Your task to perform on an android device: turn off smart reply in the gmail app Image 0: 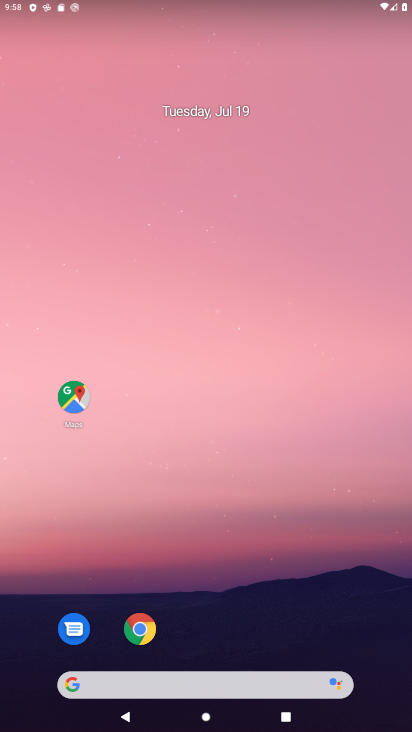
Step 0: press home button
Your task to perform on an android device: turn off smart reply in the gmail app Image 1: 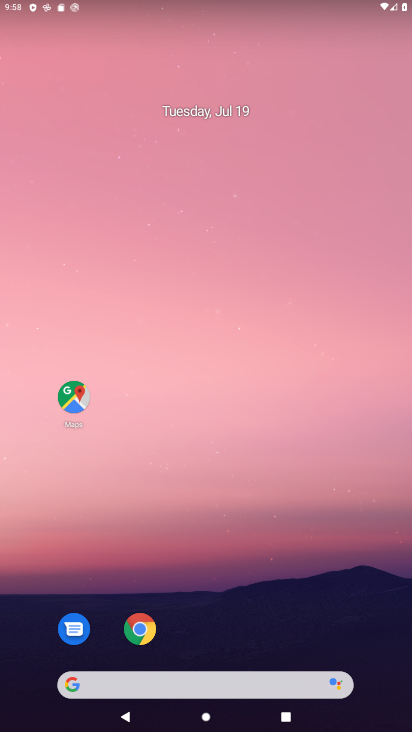
Step 1: drag from (246, 636) to (245, 90)
Your task to perform on an android device: turn off smart reply in the gmail app Image 2: 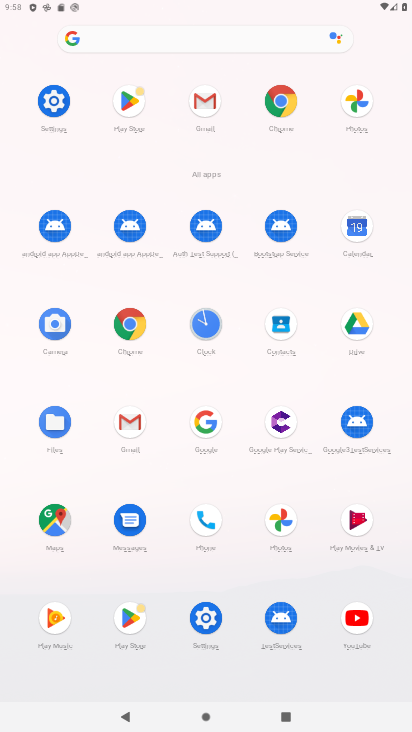
Step 2: click (210, 100)
Your task to perform on an android device: turn off smart reply in the gmail app Image 3: 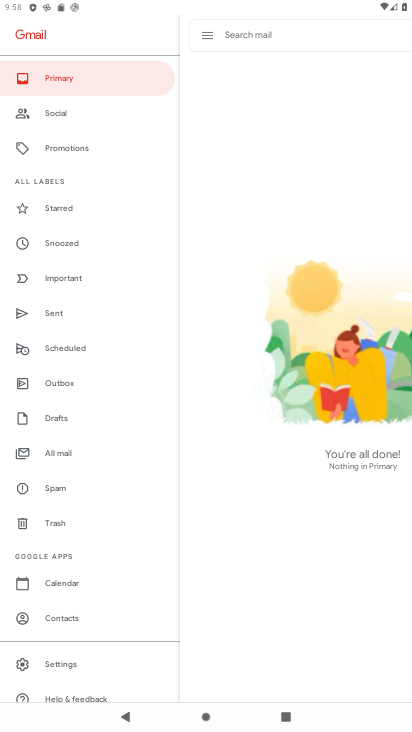
Step 3: click (53, 665)
Your task to perform on an android device: turn off smart reply in the gmail app Image 4: 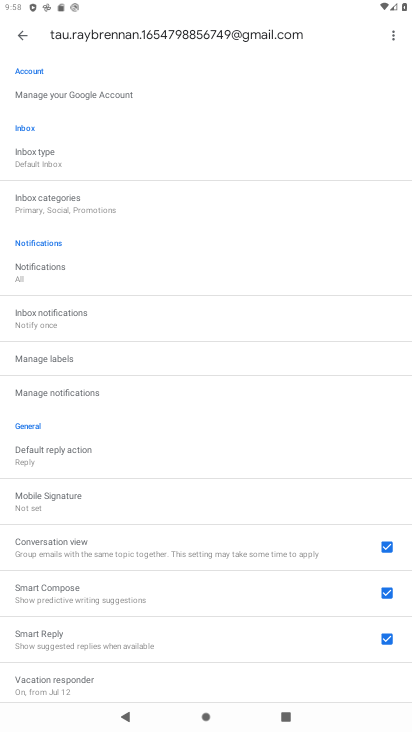
Step 4: click (383, 637)
Your task to perform on an android device: turn off smart reply in the gmail app Image 5: 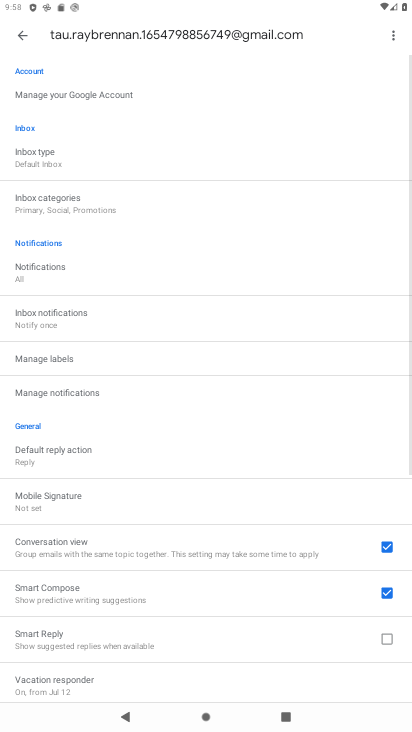
Step 5: task complete